Your task to perform on an android device: Open Google Chrome Image 0: 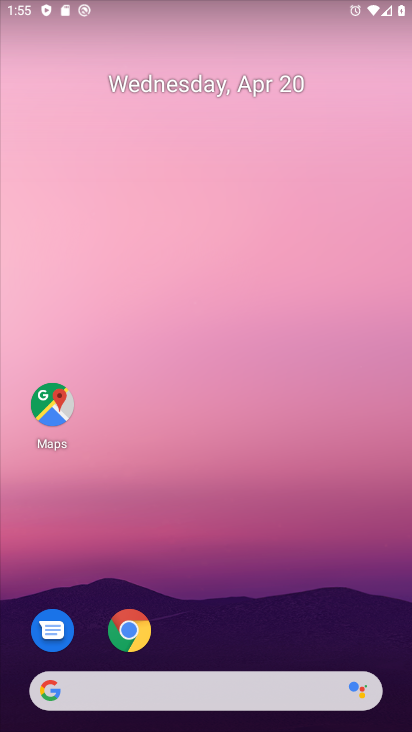
Step 0: click (131, 619)
Your task to perform on an android device: Open Google Chrome Image 1: 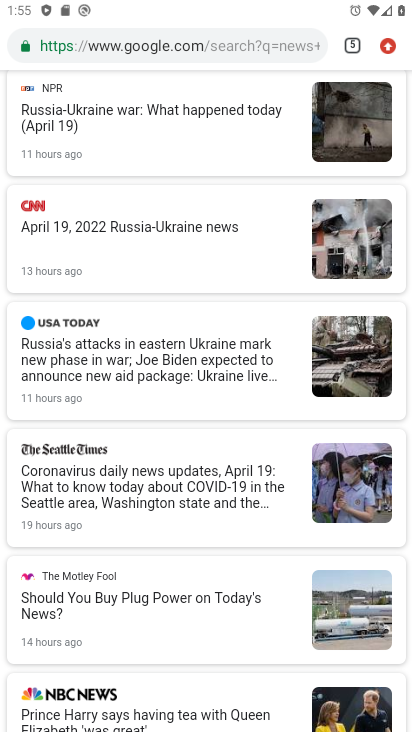
Step 1: task complete